Your task to perform on an android device: Go to settings Image 0: 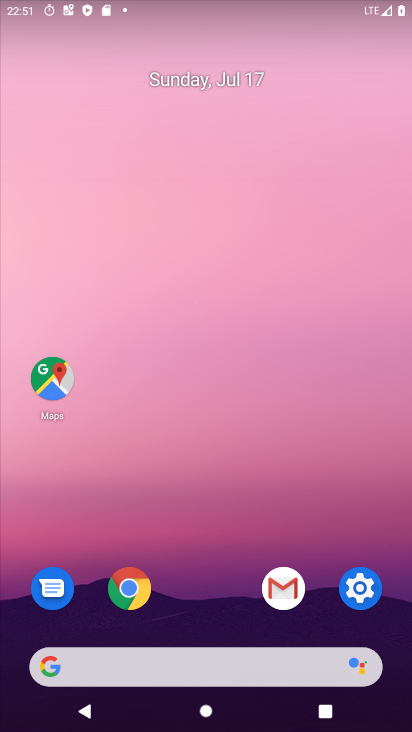
Step 0: click (372, 597)
Your task to perform on an android device: Go to settings Image 1: 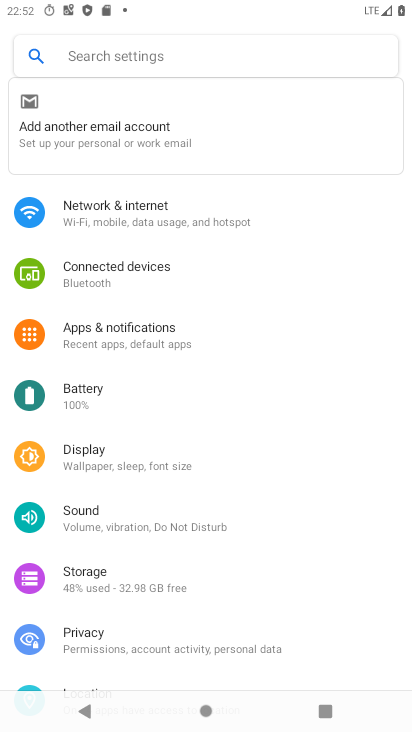
Step 1: task complete